Your task to perform on an android device: When is my next meeting? Image 0: 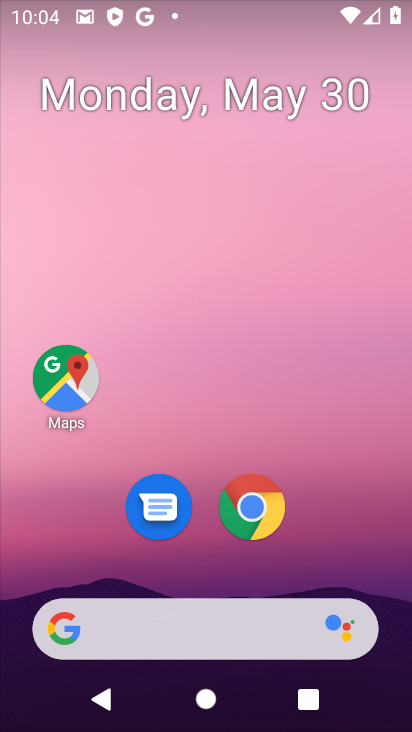
Step 0: drag from (324, 552) to (347, 194)
Your task to perform on an android device: When is my next meeting? Image 1: 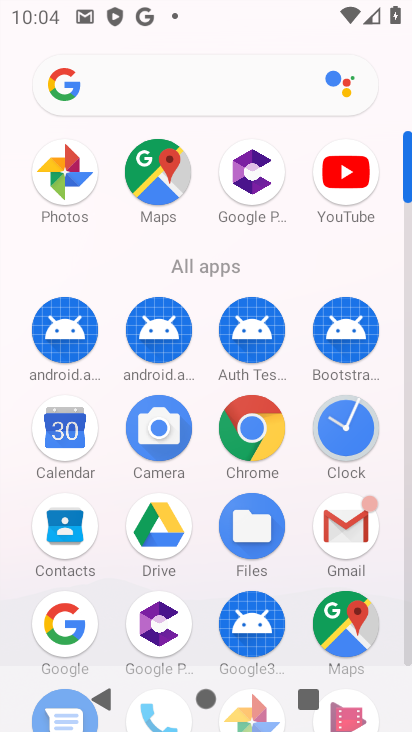
Step 1: click (73, 442)
Your task to perform on an android device: When is my next meeting? Image 2: 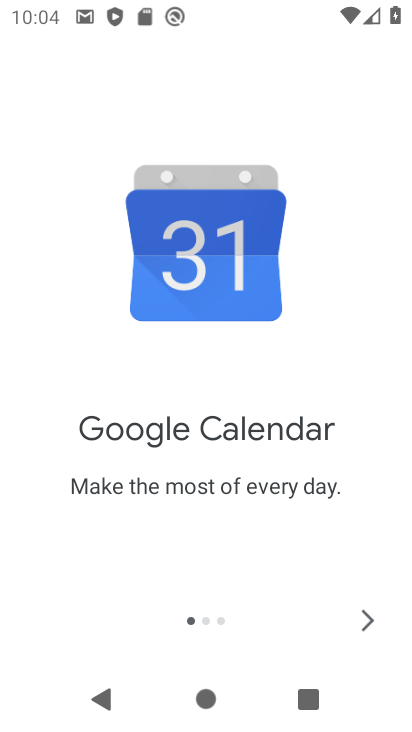
Step 2: click (347, 618)
Your task to perform on an android device: When is my next meeting? Image 3: 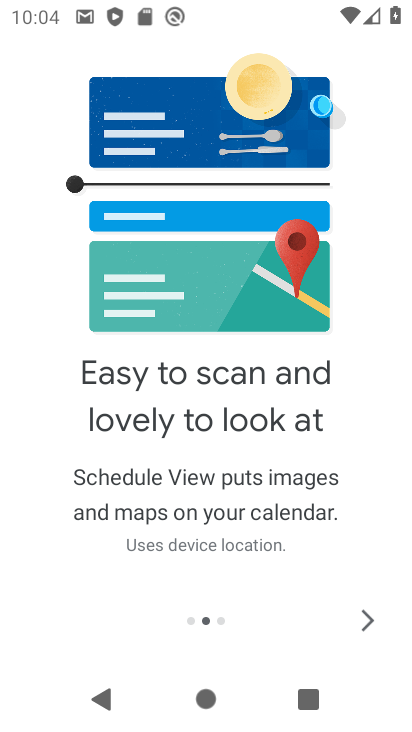
Step 3: click (347, 618)
Your task to perform on an android device: When is my next meeting? Image 4: 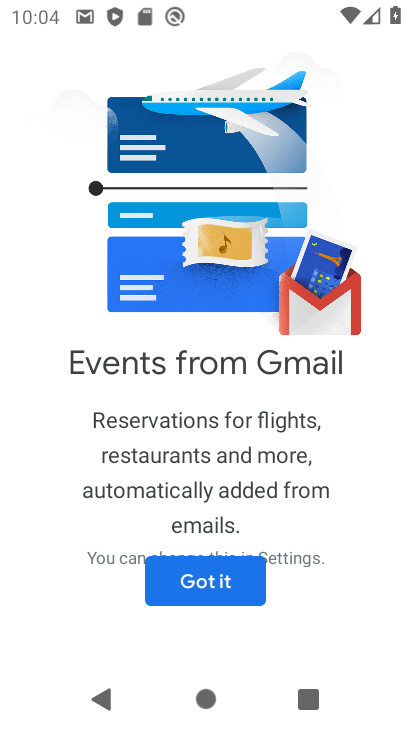
Step 4: click (237, 590)
Your task to perform on an android device: When is my next meeting? Image 5: 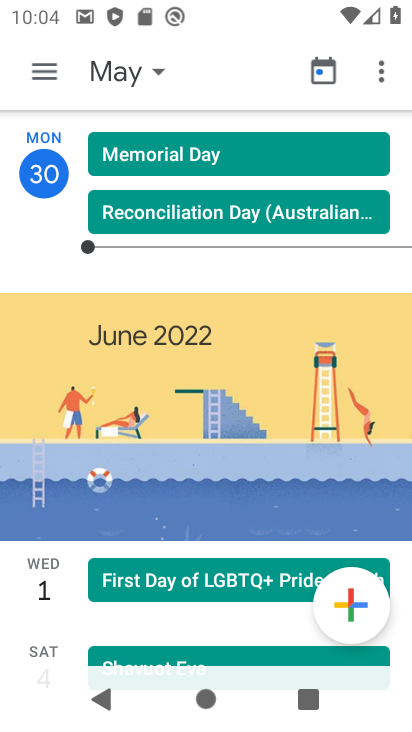
Step 5: drag from (218, 485) to (217, 297)
Your task to perform on an android device: When is my next meeting? Image 6: 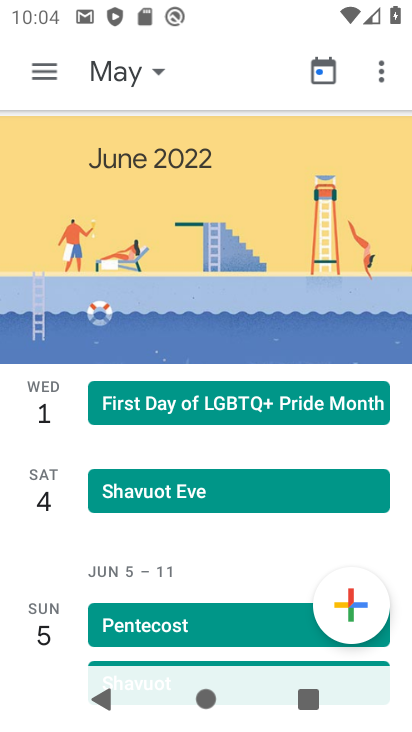
Step 6: click (240, 406)
Your task to perform on an android device: When is my next meeting? Image 7: 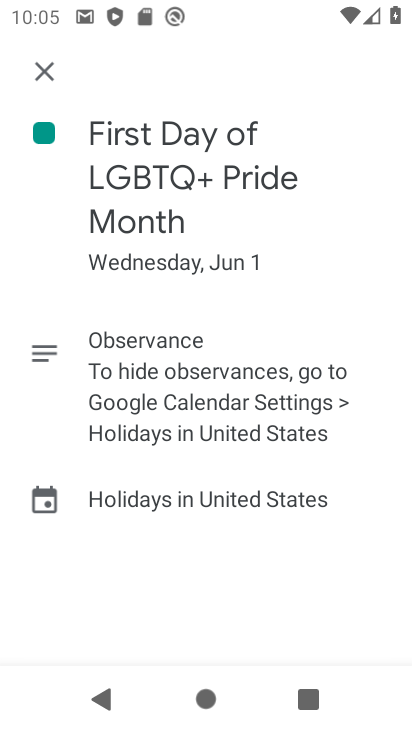
Step 7: task complete